Your task to perform on an android device: turn on bluetooth scan Image 0: 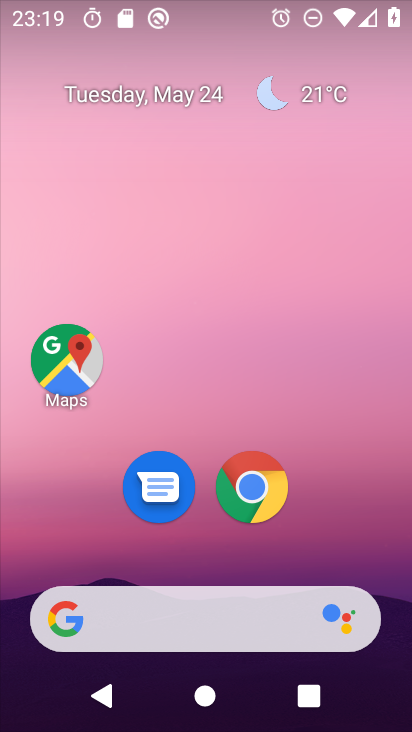
Step 0: drag from (350, 572) to (374, 0)
Your task to perform on an android device: turn on bluetooth scan Image 1: 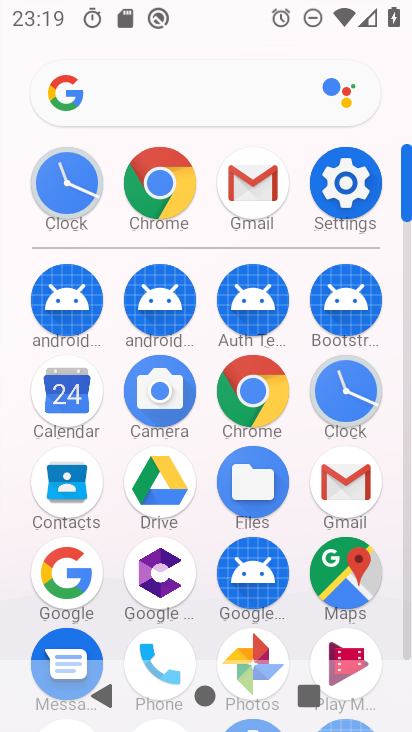
Step 1: click (346, 182)
Your task to perform on an android device: turn on bluetooth scan Image 2: 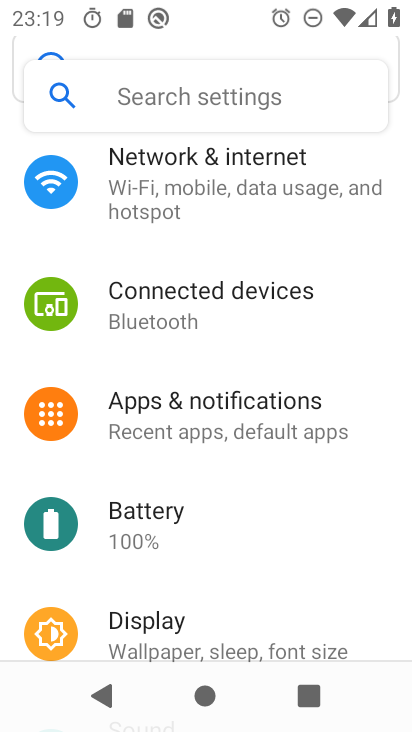
Step 2: drag from (268, 456) to (269, 120)
Your task to perform on an android device: turn on bluetooth scan Image 3: 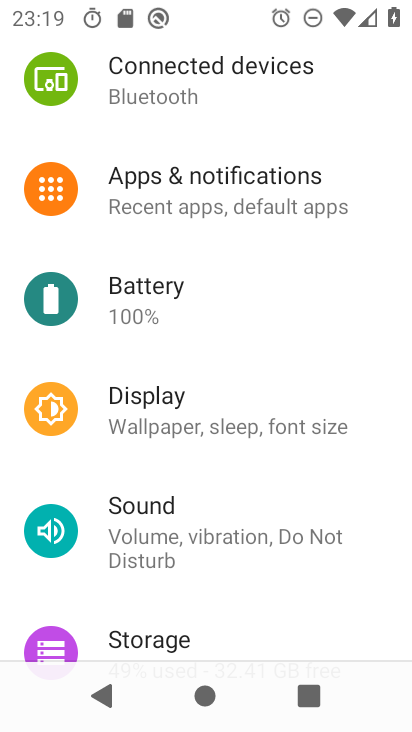
Step 3: drag from (242, 509) to (257, 79)
Your task to perform on an android device: turn on bluetooth scan Image 4: 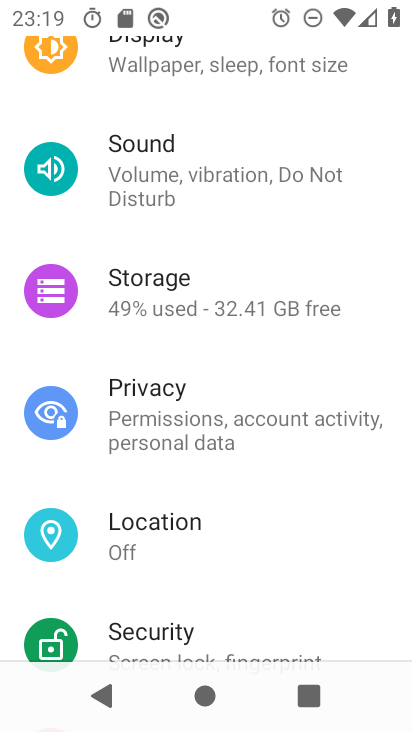
Step 4: click (143, 529)
Your task to perform on an android device: turn on bluetooth scan Image 5: 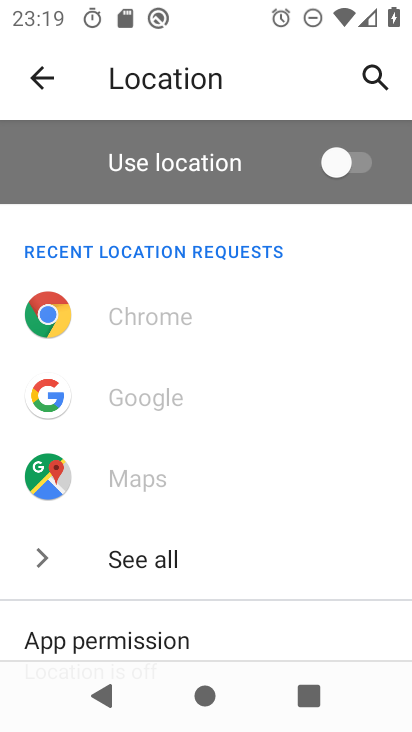
Step 5: drag from (241, 547) to (249, 44)
Your task to perform on an android device: turn on bluetooth scan Image 6: 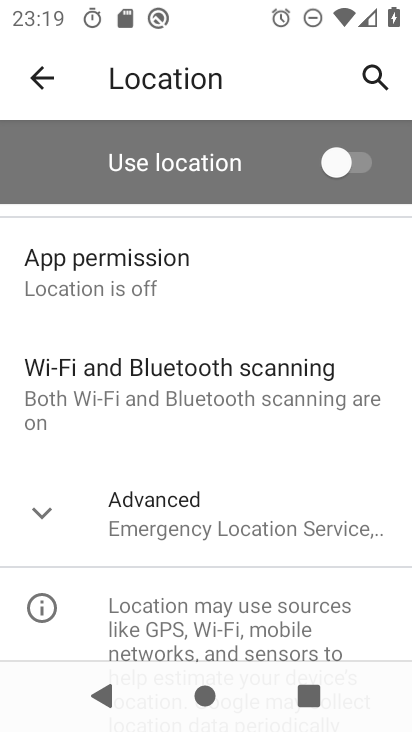
Step 6: click (166, 385)
Your task to perform on an android device: turn on bluetooth scan Image 7: 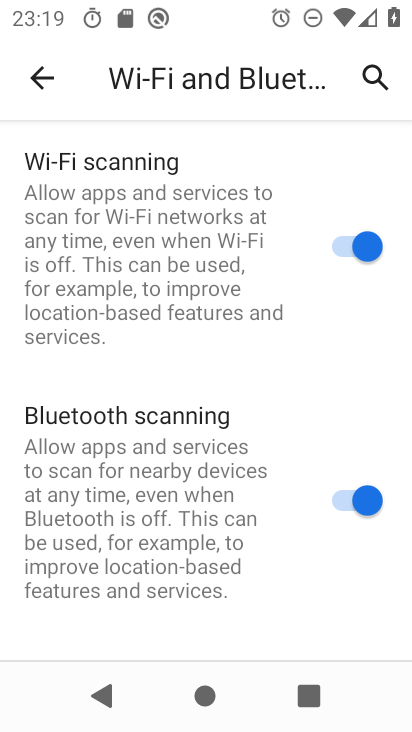
Step 7: task complete